Your task to perform on an android device: change keyboard looks Image 0: 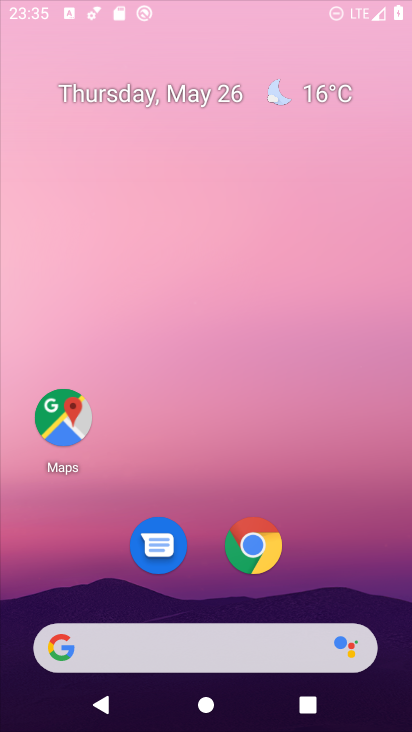
Step 0: press home button
Your task to perform on an android device: change keyboard looks Image 1: 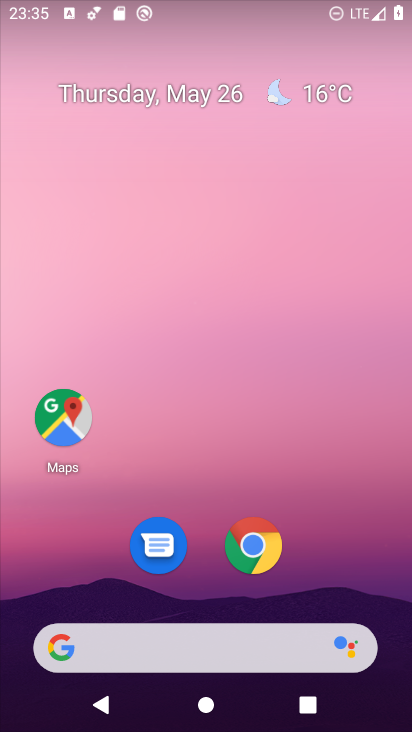
Step 1: drag from (341, 613) to (247, 185)
Your task to perform on an android device: change keyboard looks Image 2: 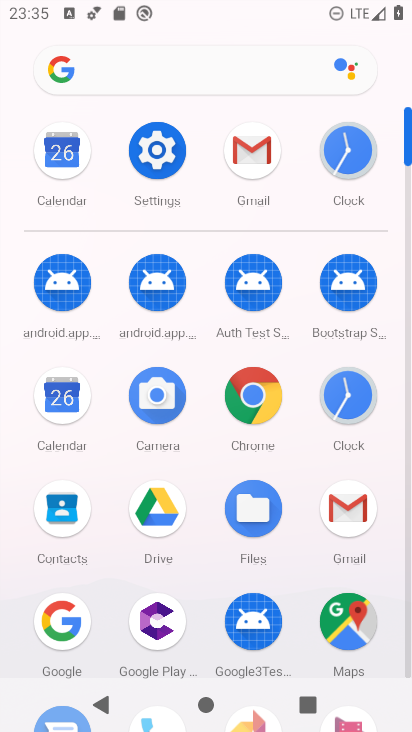
Step 2: click (167, 158)
Your task to perform on an android device: change keyboard looks Image 3: 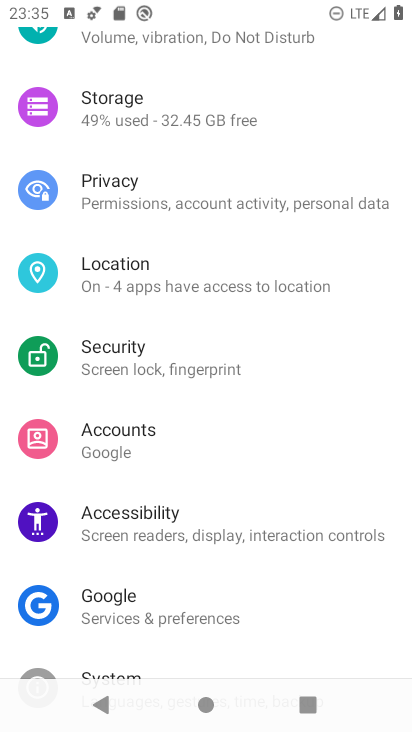
Step 3: drag from (315, 106) to (333, 689)
Your task to perform on an android device: change keyboard looks Image 4: 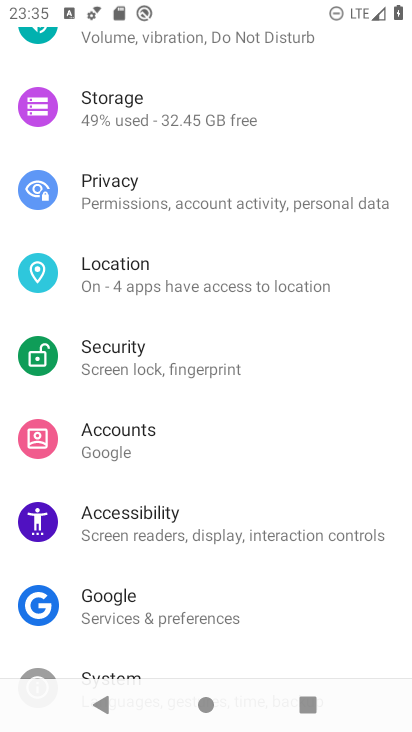
Step 4: drag from (345, 422) to (267, 32)
Your task to perform on an android device: change keyboard looks Image 5: 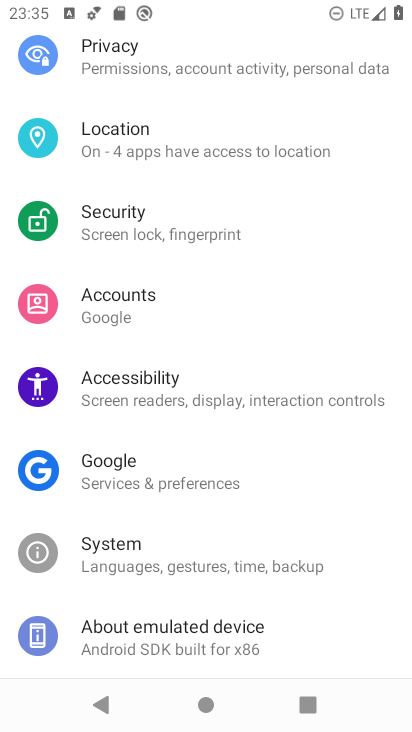
Step 5: click (121, 575)
Your task to perform on an android device: change keyboard looks Image 6: 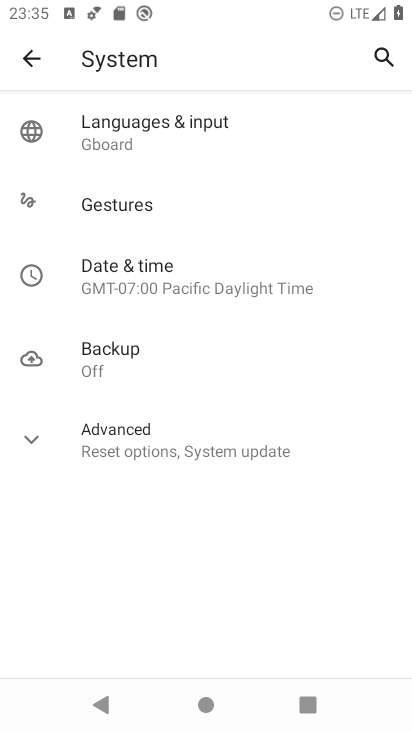
Step 6: click (107, 146)
Your task to perform on an android device: change keyboard looks Image 7: 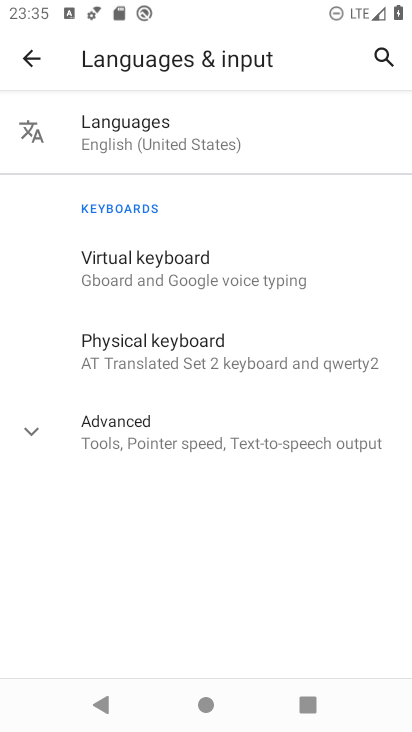
Step 7: click (171, 274)
Your task to perform on an android device: change keyboard looks Image 8: 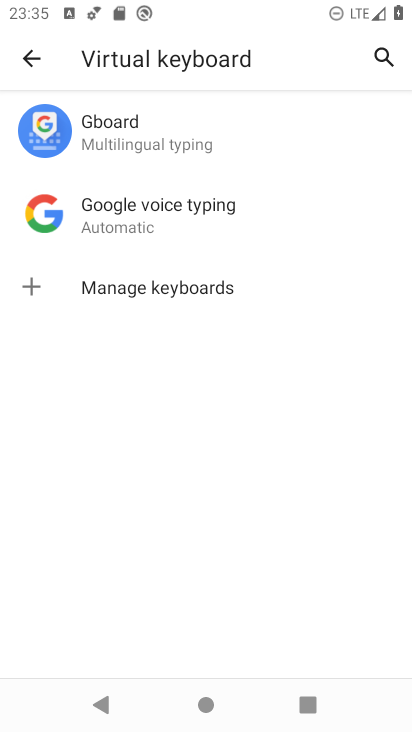
Step 8: click (98, 127)
Your task to perform on an android device: change keyboard looks Image 9: 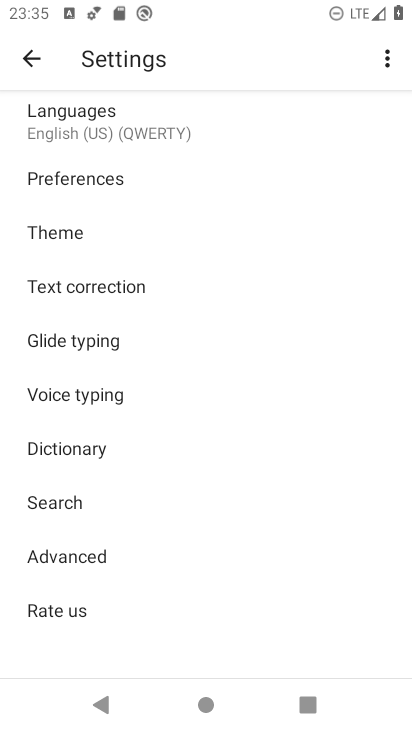
Step 9: click (53, 231)
Your task to perform on an android device: change keyboard looks Image 10: 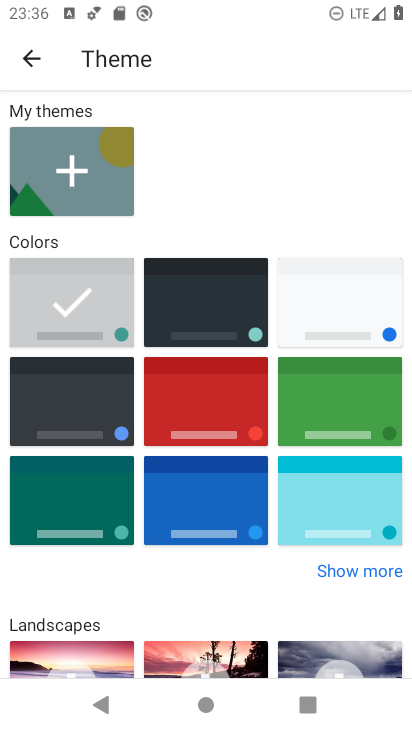
Step 10: click (196, 296)
Your task to perform on an android device: change keyboard looks Image 11: 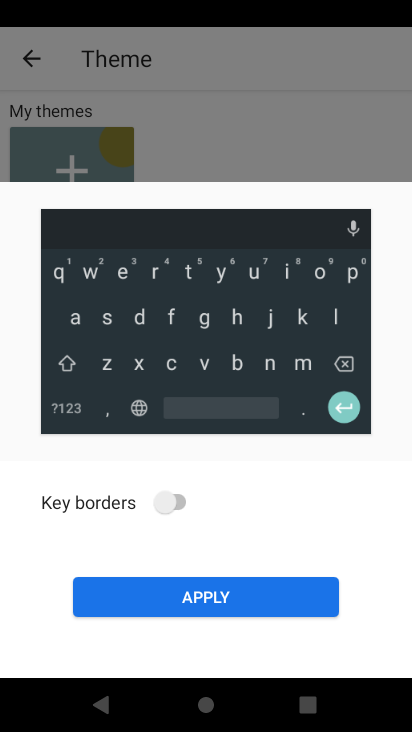
Step 11: click (294, 613)
Your task to perform on an android device: change keyboard looks Image 12: 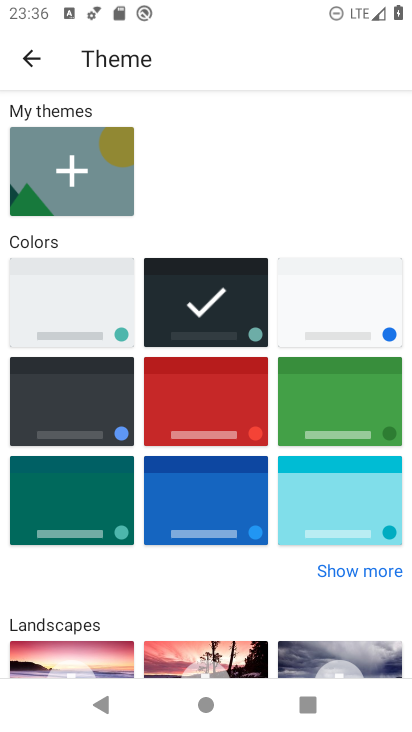
Step 12: task complete